Your task to perform on an android device: change text size in settings app Image 0: 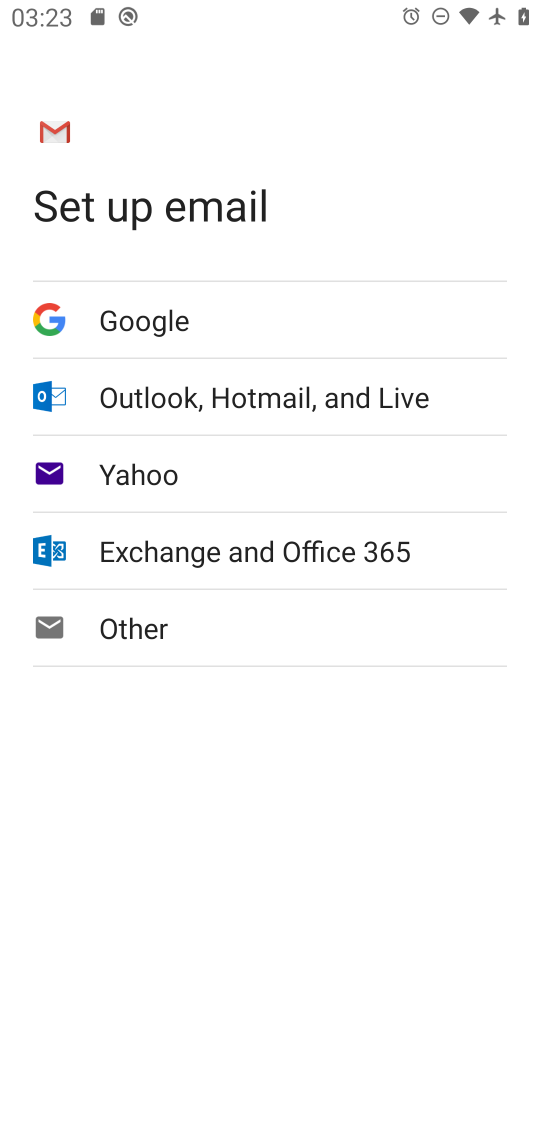
Step 0: press home button
Your task to perform on an android device: change text size in settings app Image 1: 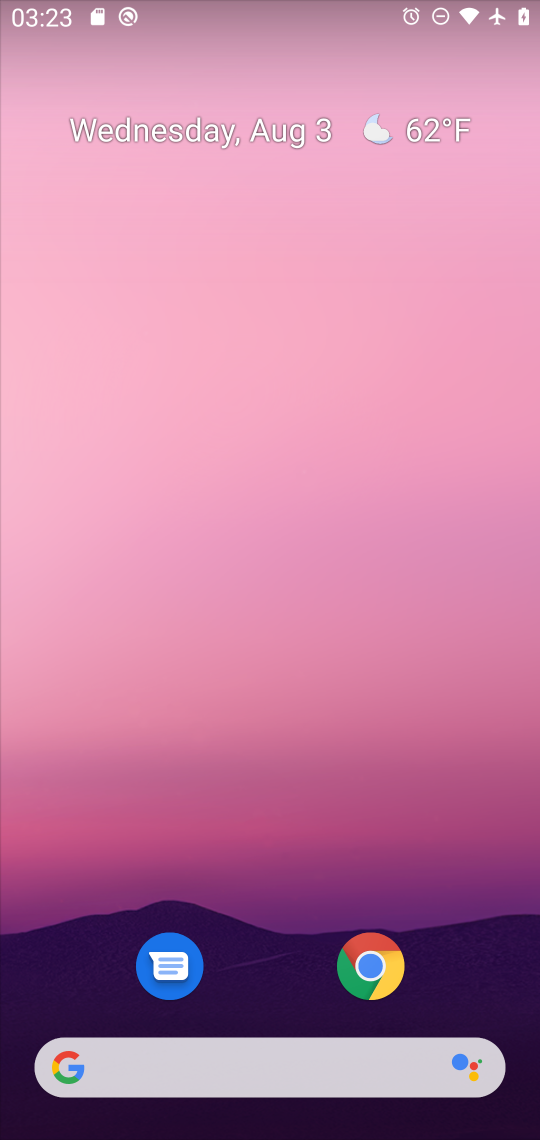
Step 1: drag from (263, 984) to (287, 347)
Your task to perform on an android device: change text size in settings app Image 2: 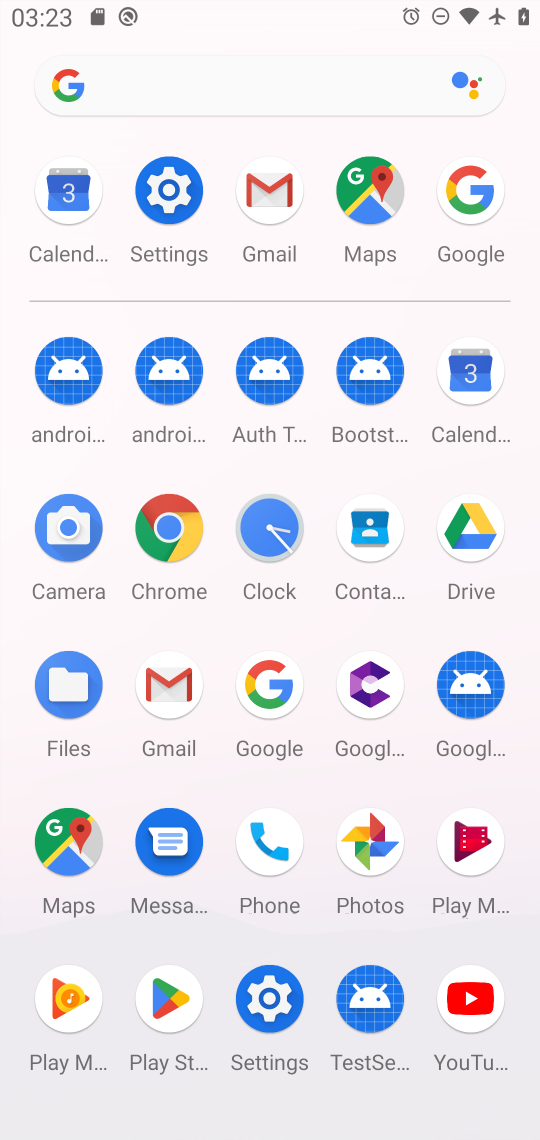
Step 2: click (180, 224)
Your task to perform on an android device: change text size in settings app Image 3: 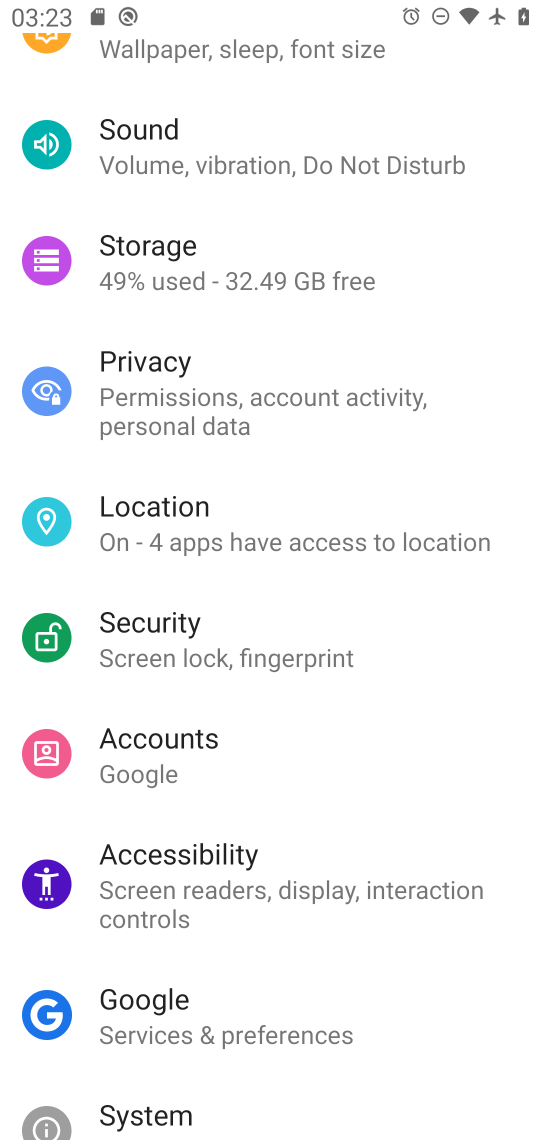
Step 3: drag from (248, 290) to (314, 659)
Your task to perform on an android device: change text size in settings app Image 4: 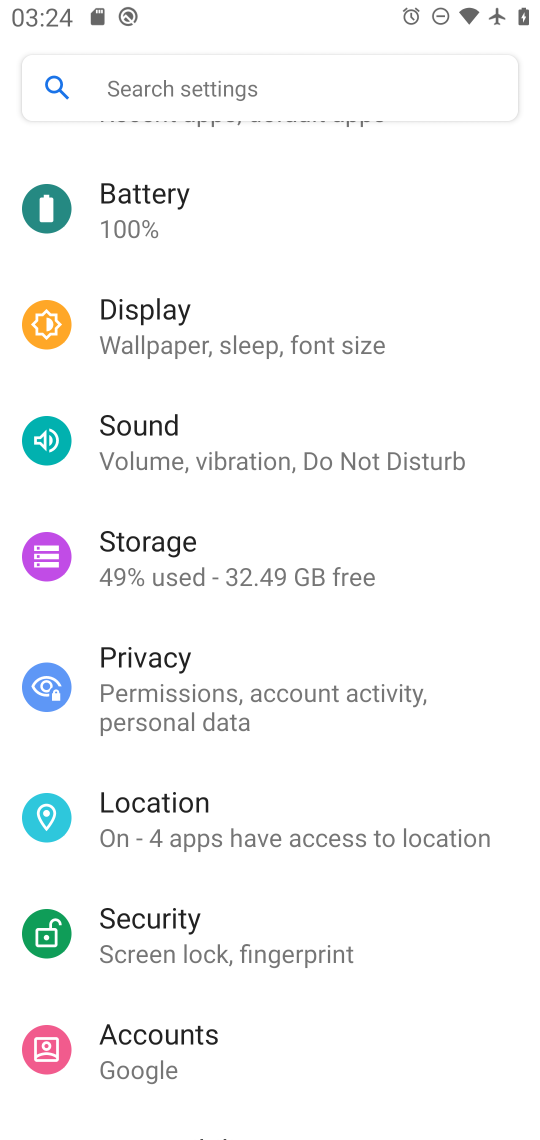
Step 4: click (235, 321)
Your task to perform on an android device: change text size in settings app Image 5: 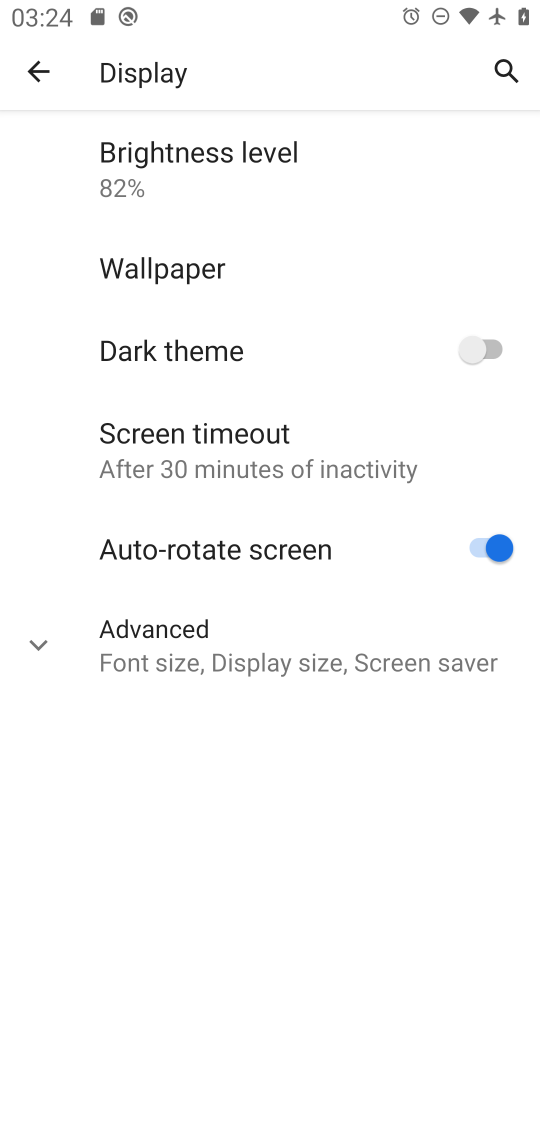
Step 5: click (194, 631)
Your task to perform on an android device: change text size in settings app Image 6: 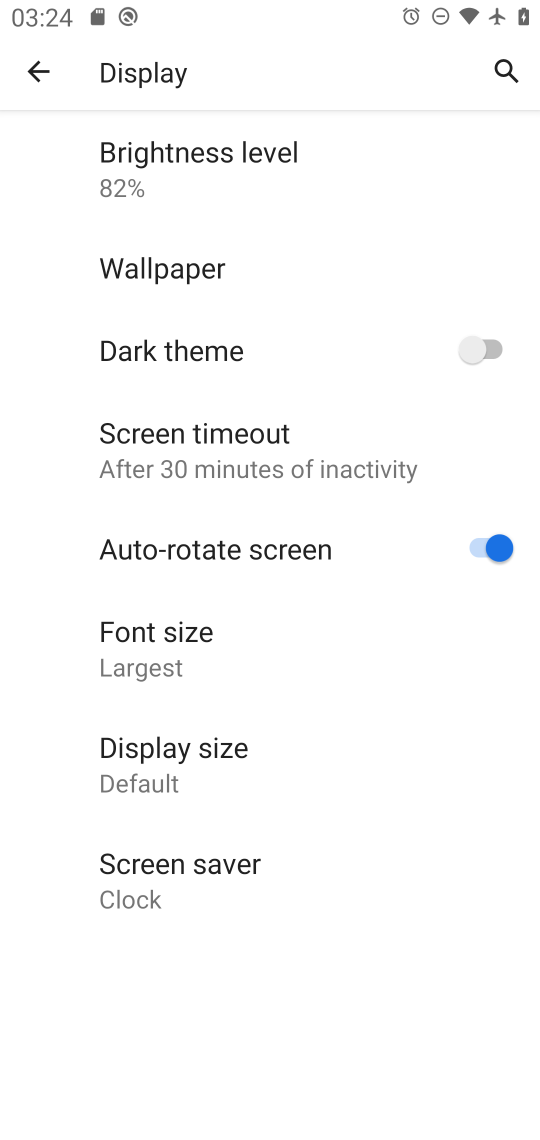
Step 6: click (207, 660)
Your task to perform on an android device: change text size in settings app Image 7: 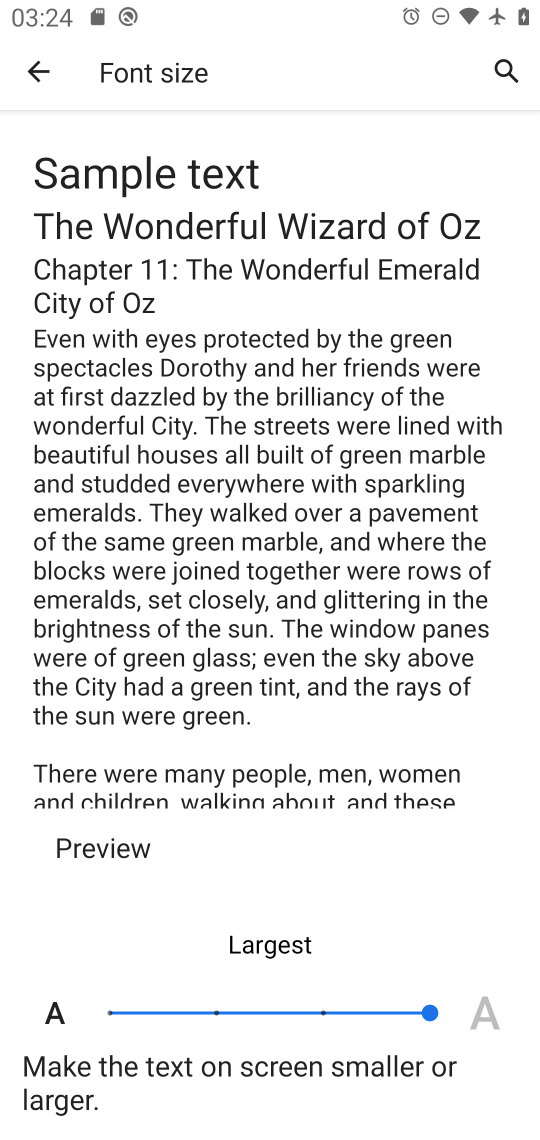
Step 7: click (369, 1011)
Your task to perform on an android device: change text size in settings app Image 8: 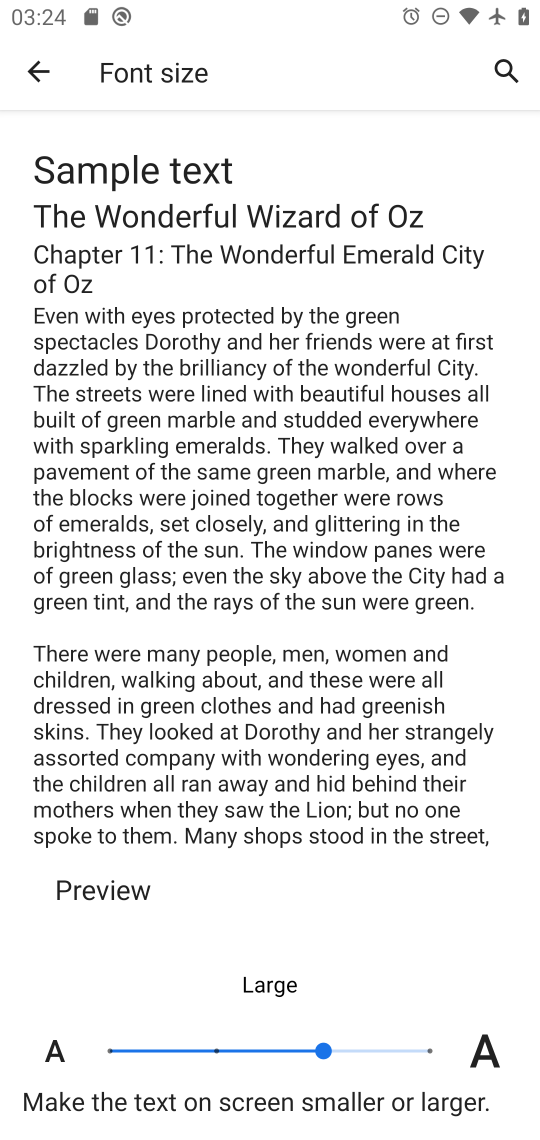
Step 8: task complete